Your task to perform on an android device: What's on my calendar today? Image 0: 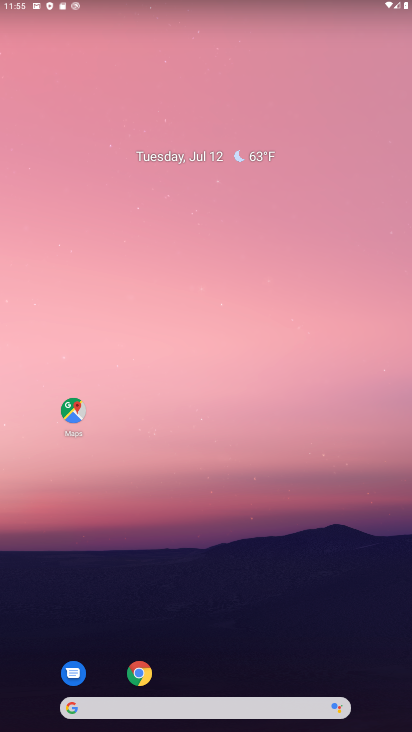
Step 0: drag from (213, 217) to (204, 68)
Your task to perform on an android device: What's on my calendar today? Image 1: 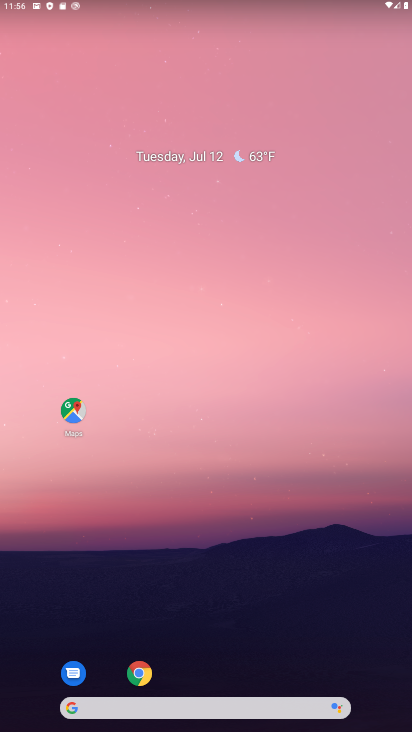
Step 1: drag from (263, 661) to (223, 26)
Your task to perform on an android device: What's on my calendar today? Image 2: 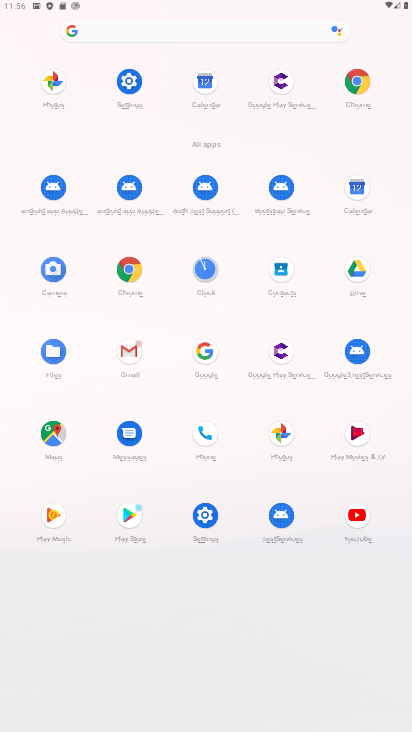
Step 2: click (355, 181)
Your task to perform on an android device: What's on my calendar today? Image 3: 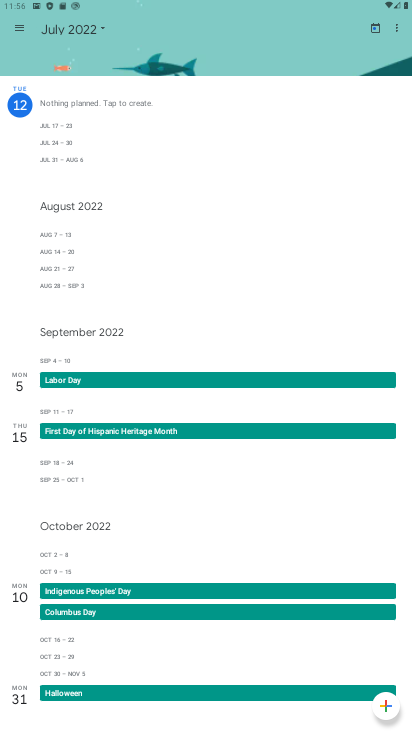
Step 3: click (98, 26)
Your task to perform on an android device: What's on my calendar today? Image 4: 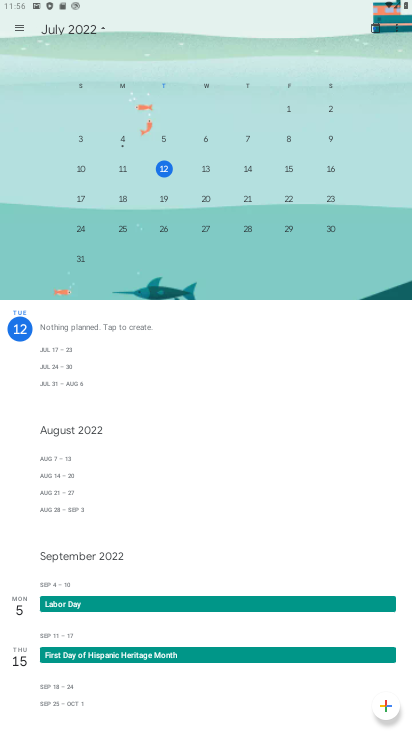
Step 4: click (163, 166)
Your task to perform on an android device: What's on my calendar today? Image 5: 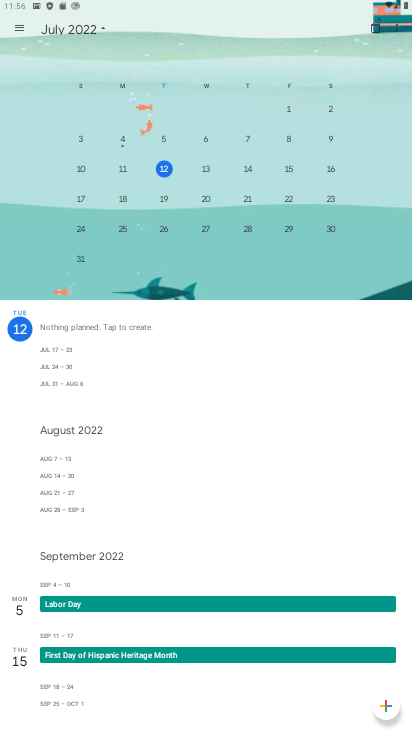
Step 5: task complete